Your task to perform on an android device: check battery use Image 0: 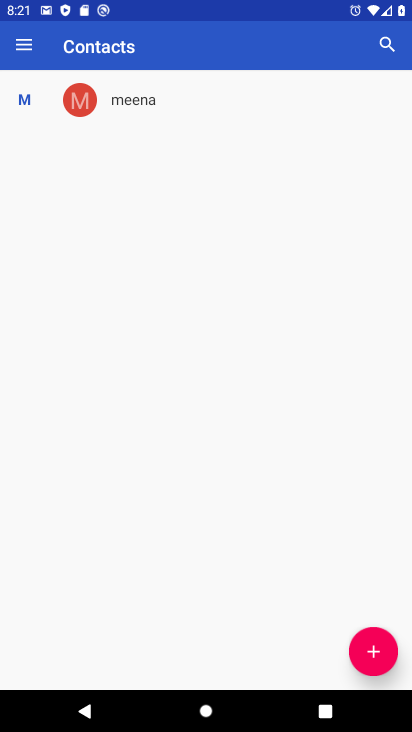
Step 0: press home button
Your task to perform on an android device: check battery use Image 1: 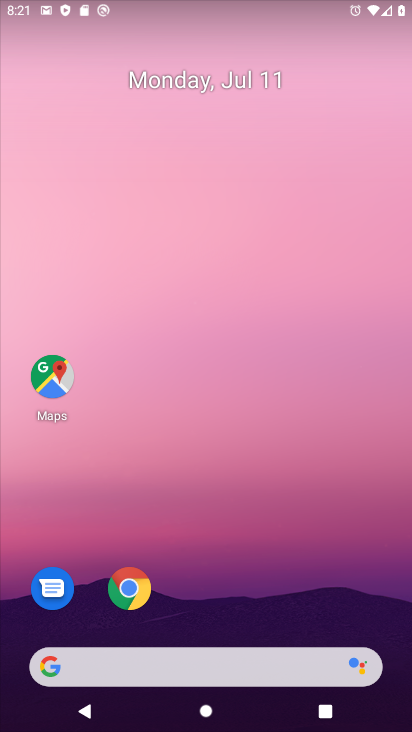
Step 1: drag from (181, 664) to (337, 96)
Your task to perform on an android device: check battery use Image 2: 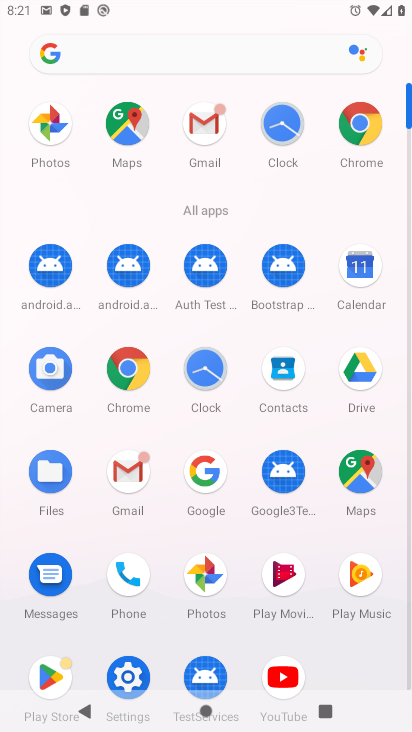
Step 2: click (135, 671)
Your task to perform on an android device: check battery use Image 3: 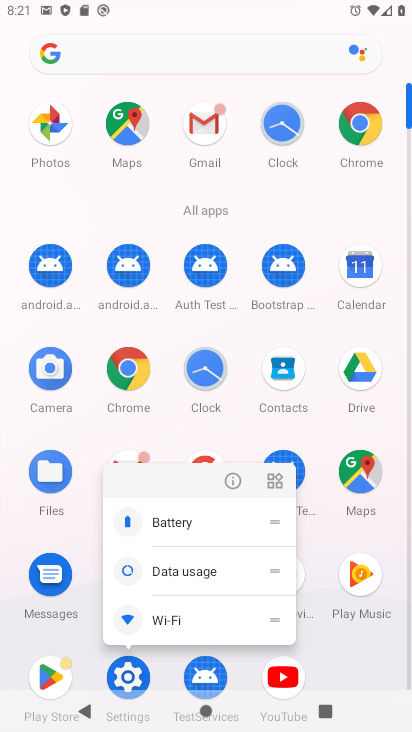
Step 3: click (135, 672)
Your task to perform on an android device: check battery use Image 4: 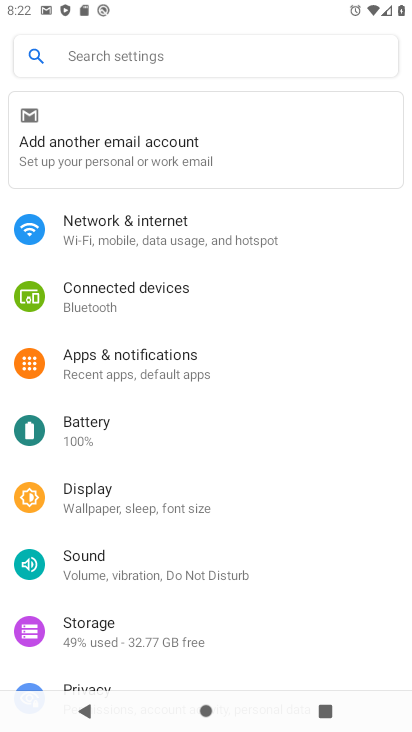
Step 4: click (86, 312)
Your task to perform on an android device: check battery use Image 5: 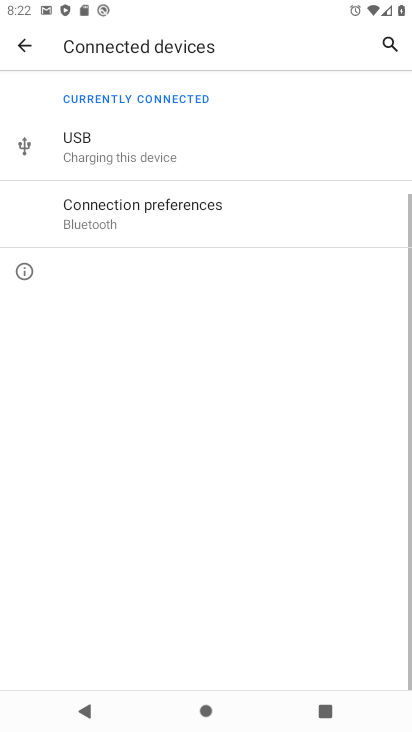
Step 5: click (28, 41)
Your task to perform on an android device: check battery use Image 6: 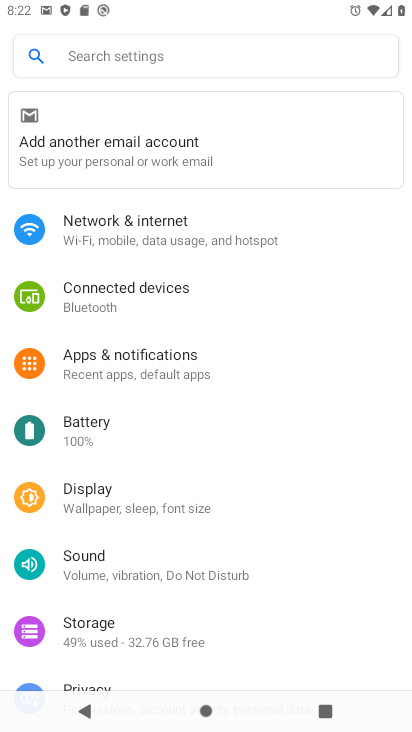
Step 6: click (86, 423)
Your task to perform on an android device: check battery use Image 7: 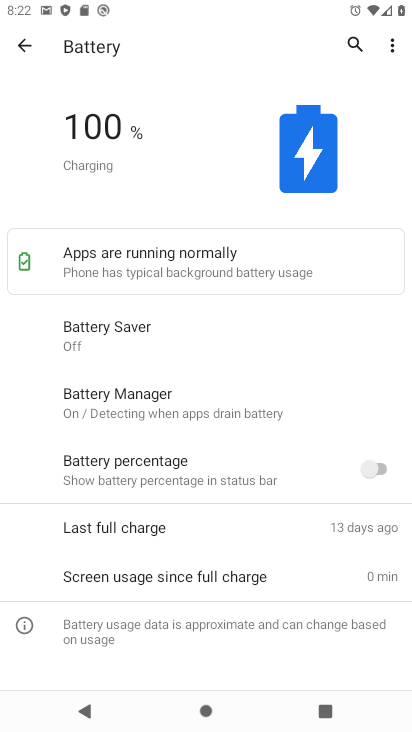
Step 7: task complete